Your task to perform on an android device: Open maps Image 0: 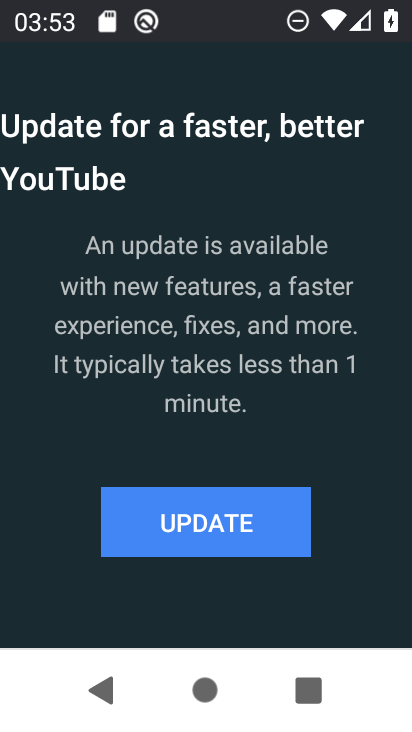
Step 0: press home button
Your task to perform on an android device: Open maps Image 1: 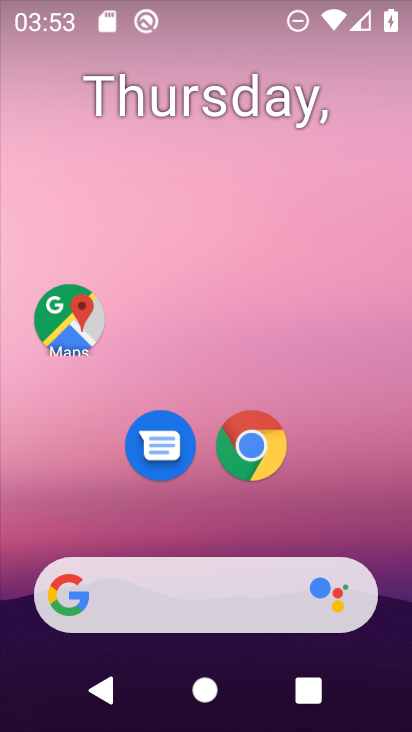
Step 1: click (63, 323)
Your task to perform on an android device: Open maps Image 2: 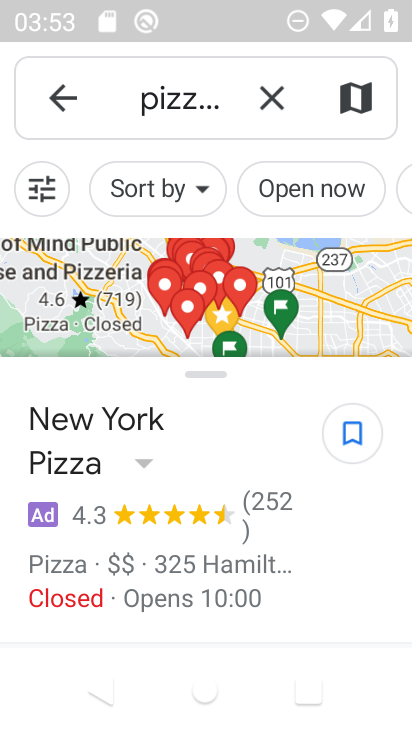
Step 2: task complete